Your task to perform on an android device: Search for "bose soundlink" on target.com, select the first entry, add it to the cart, then select checkout. Image 0: 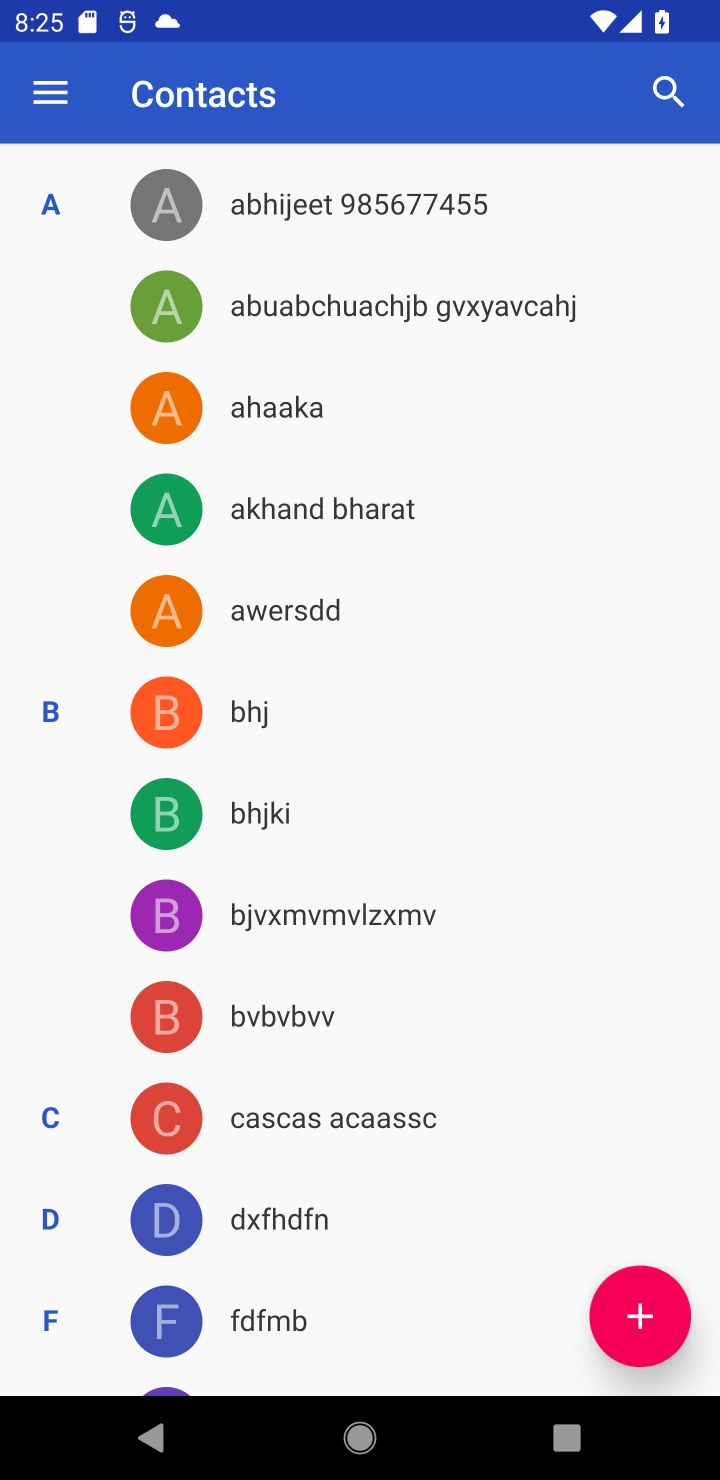
Step 0: press home button
Your task to perform on an android device: Search for "bose soundlink" on target.com, select the first entry, add it to the cart, then select checkout. Image 1: 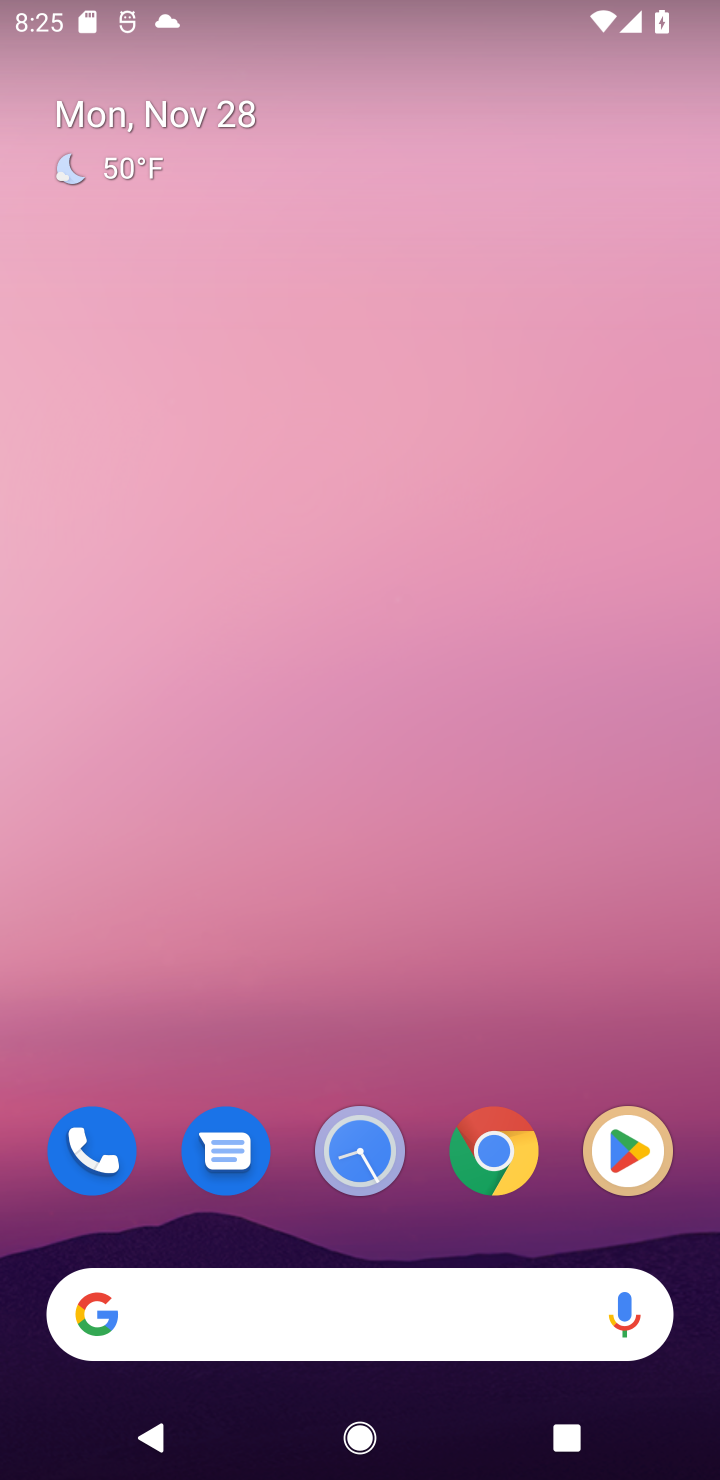
Step 1: click (198, 1351)
Your task to perform on an android device: Search for "bose soundlink" on target.com, select the first entry, add it to the cart, then select checkout. Image 2: 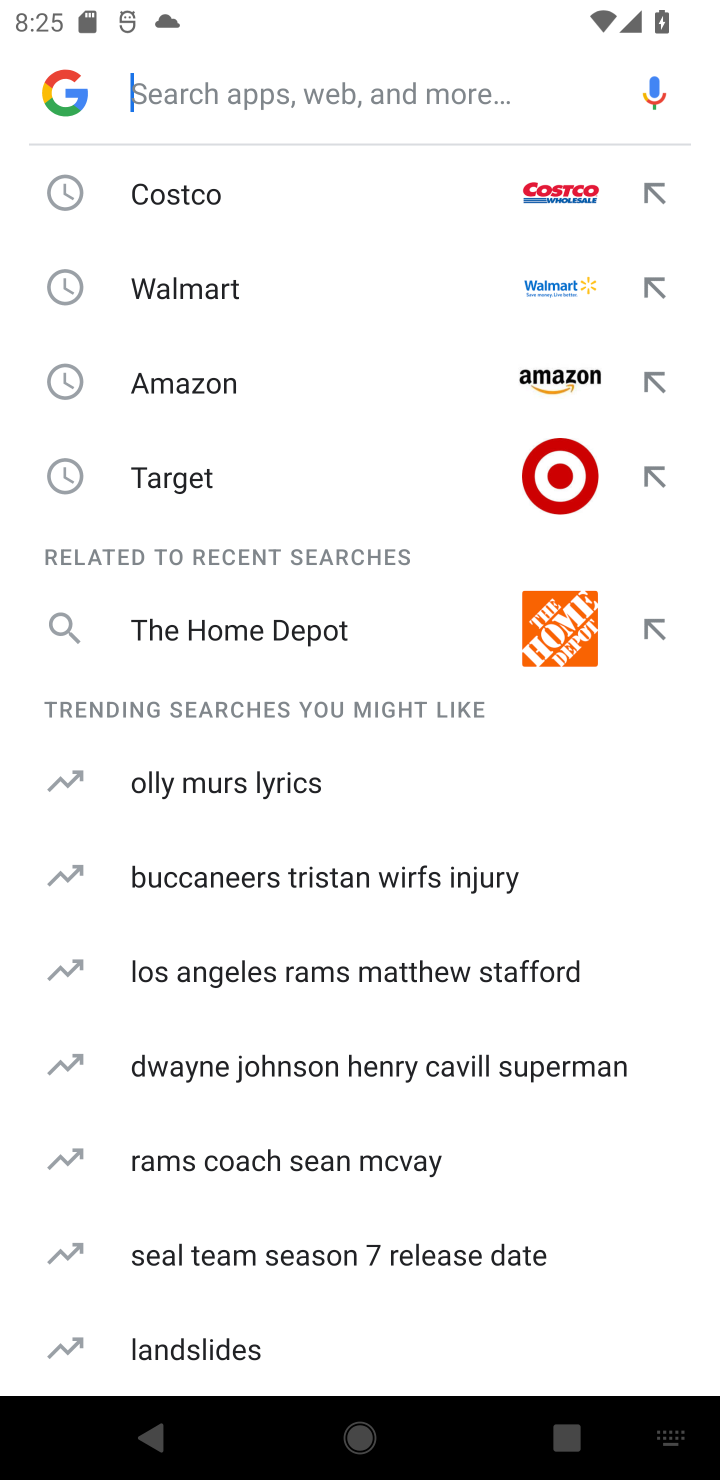
Step 2: type "target.com"
Your task to perform on an android device: Search for "bose soundlink" on target.com, select the first entry, add it to the cart, then select checkout. Image 3: 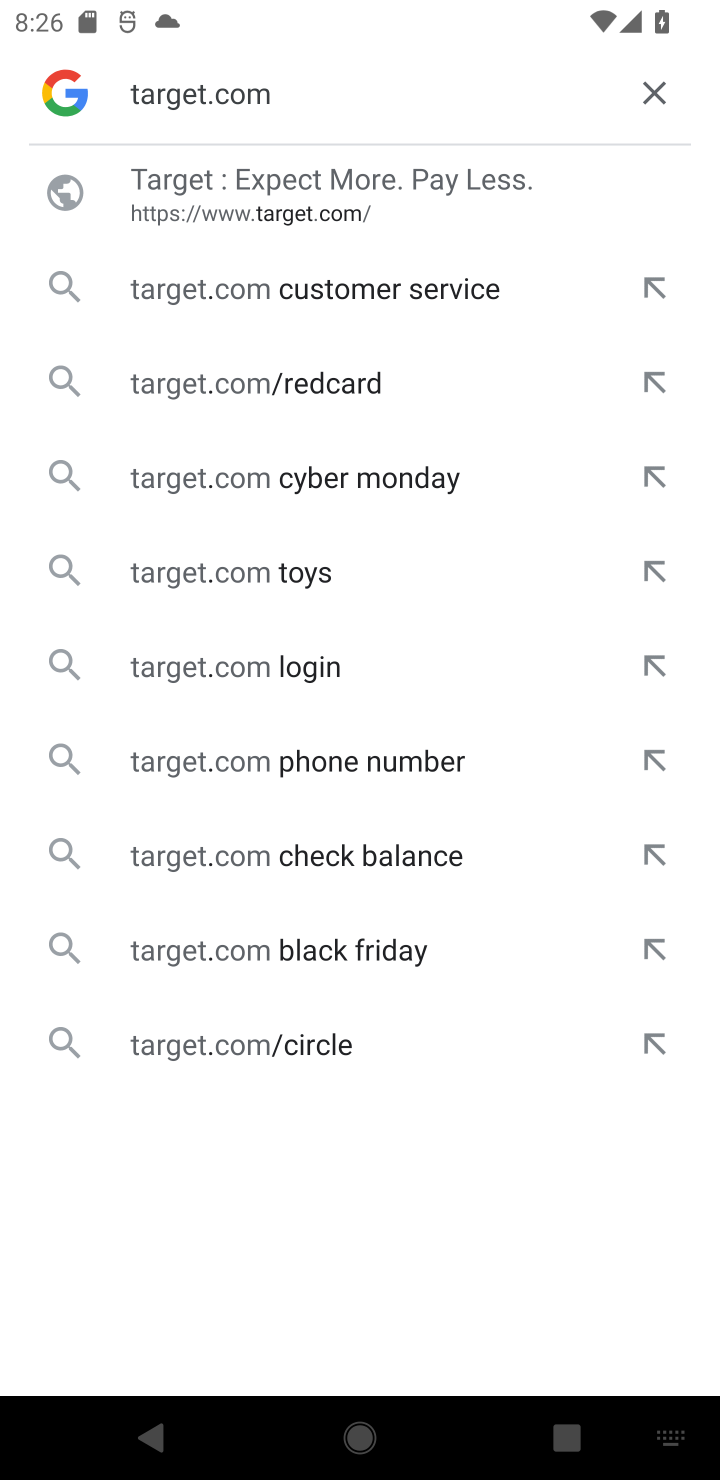
Step 3: click (306, 186)
Your task to perform on an android device: Search for "bose soundlink" on target.com, select the first entry, add it to the cart, then select checkout. Image 4: 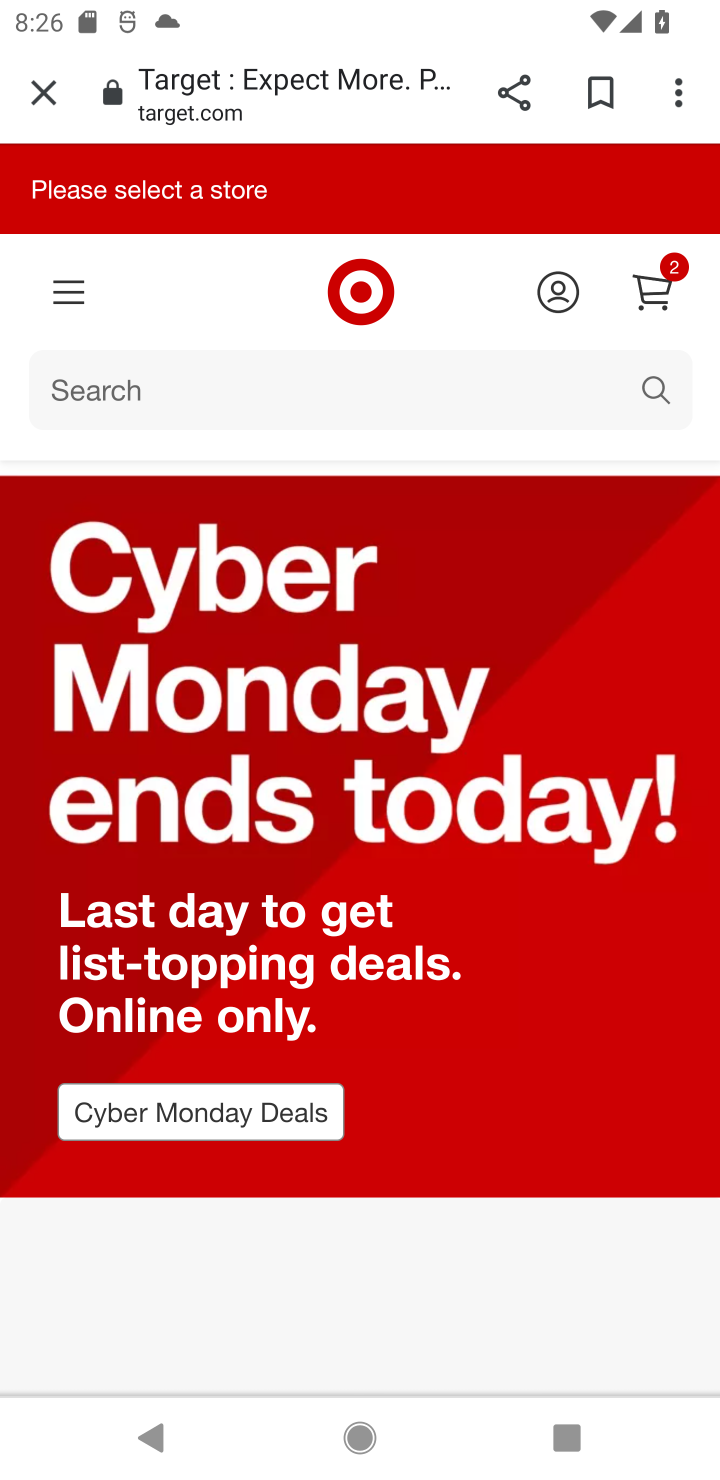
Step 4: click (420, 377)
Your task to perform on an android device: Search for "bose soundlink" on target.com, select the first entry, add it to the cart, then select checkout. Image 5: 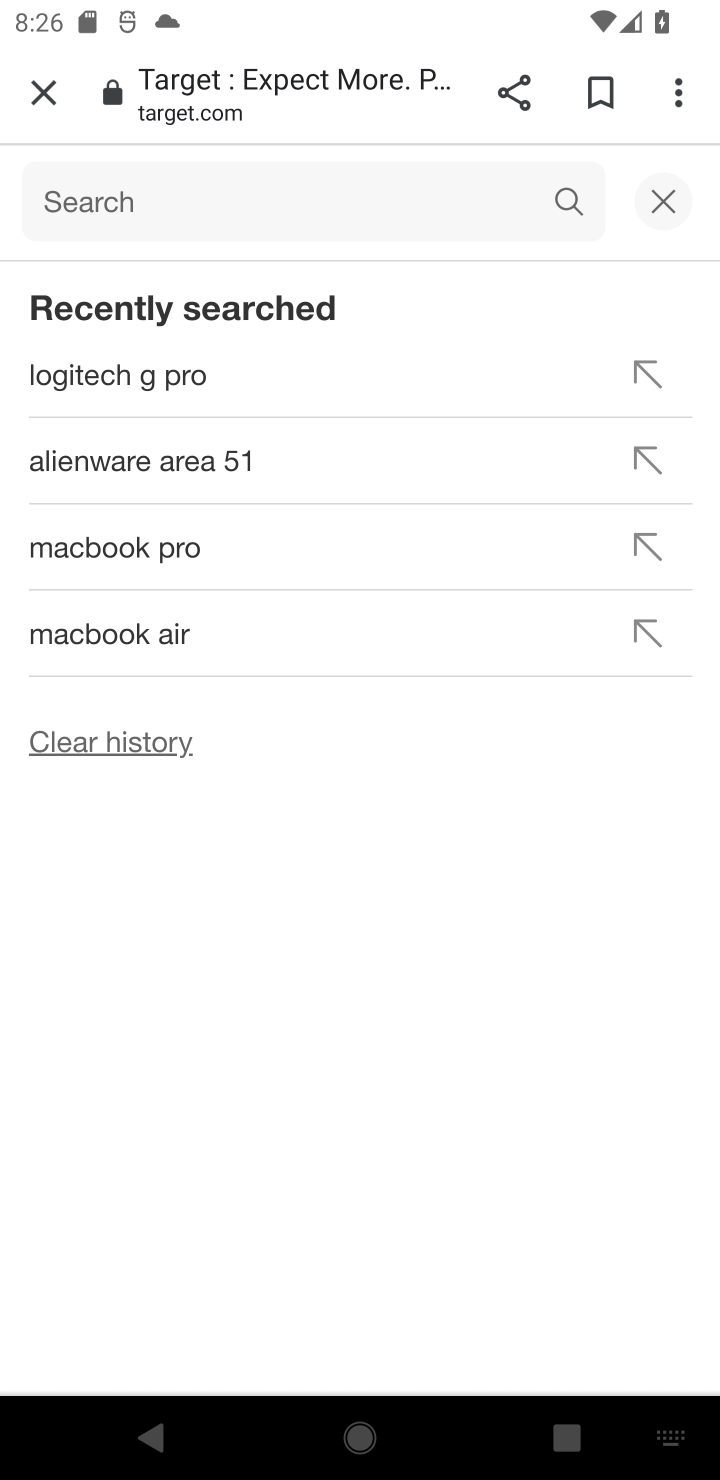
Step 5: type "bose soundlink"
Your task to perform on an android device: Search for "bose soundlink" on target.com, select the first entry, add it to the cart, then select checkout. Image 6: 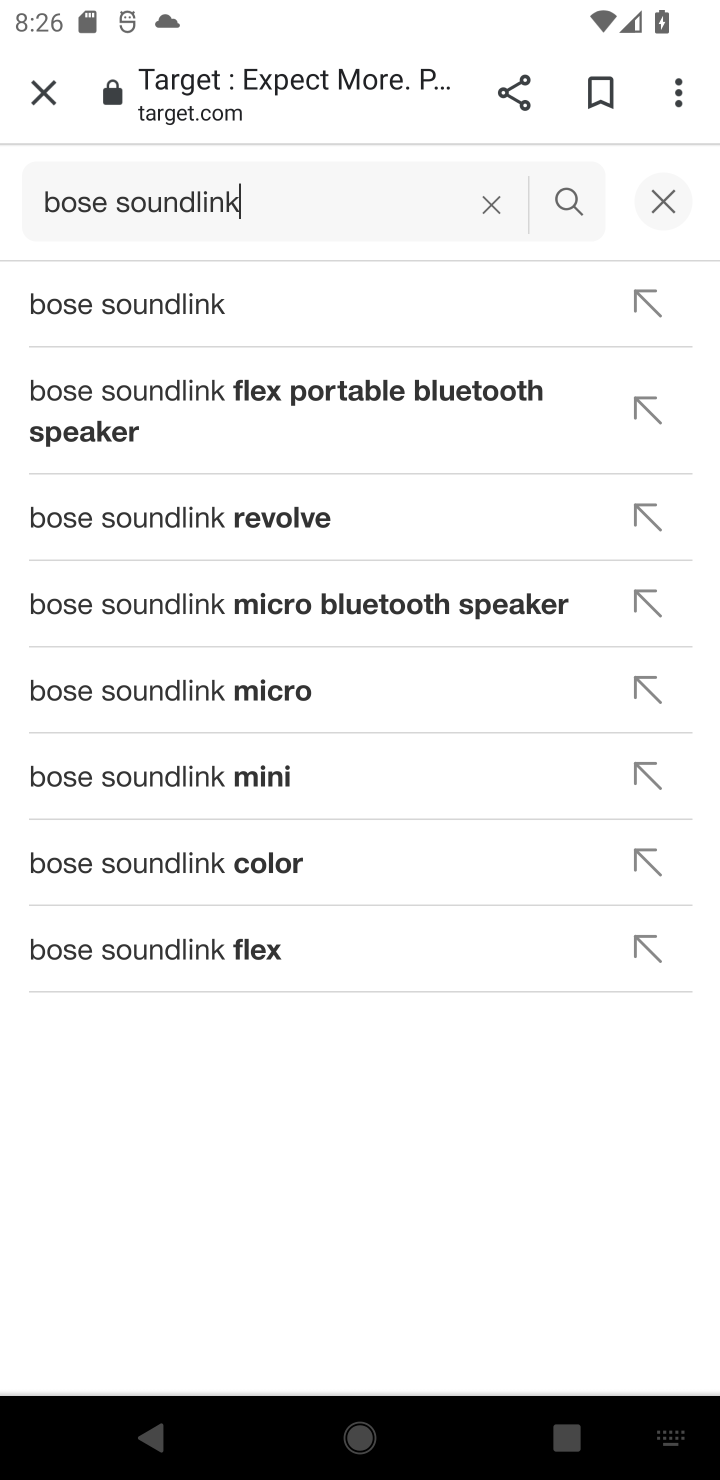
Step 6: task complete